Your task to perform on an android device: Clear all items from cart on bestbuy.com. Image 0: 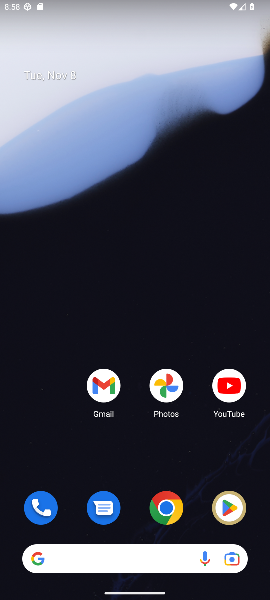
Step 0: click (162, 506)
Your task to perform on an android device: Clear all items from cart on bestbuy.com. Image 1: 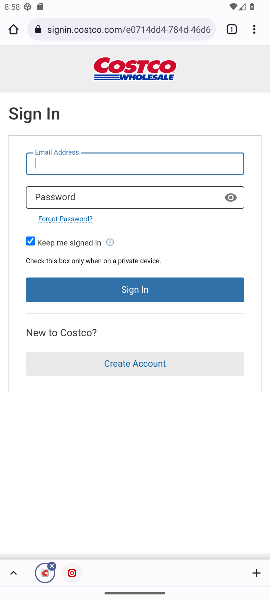
Step 1: click (79, 25)
Your task to perform on an android device: Clear all items from cart on bestbuy.com. Image 2: 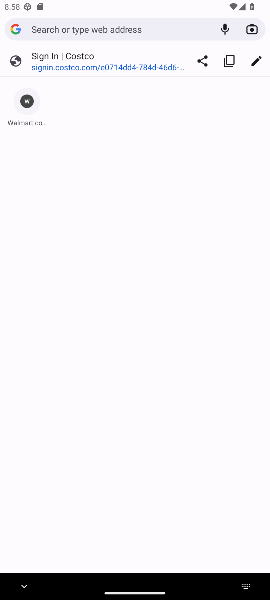
Step 2: type "best buy"
Your task to perform on an android device: Clear all items from cart on bestbuy.com. Image 3: 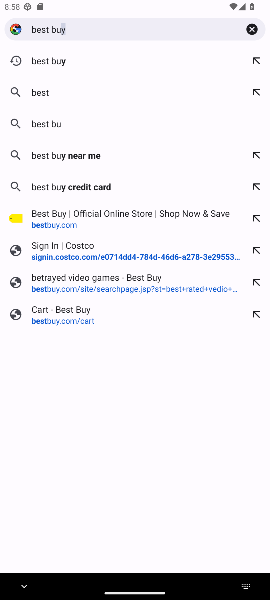
Step 3: type ""
Your task to perform on an android device: Clear all items from cart on bestbuy.com. Image 4: 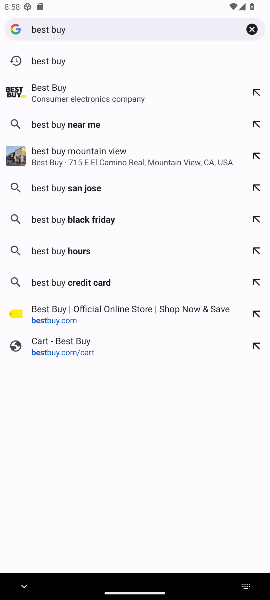
Step 4: click (63, 97)
Your task to perform on an android device: Clear all items from cart on bestbuy.com. Image 5: 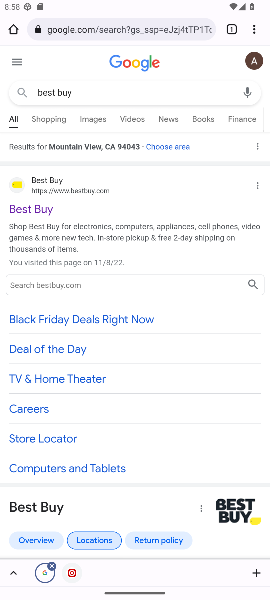
Step 5: click (29, 209)
Your task to perform on an android device: Clear all items from cart on bestbuy.com. Image 6: 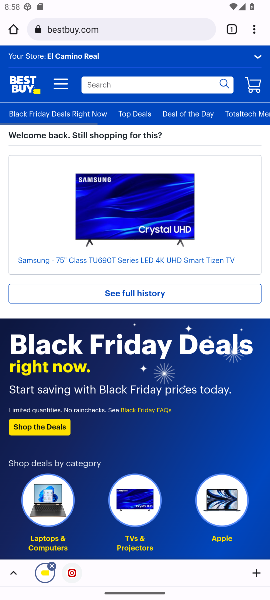
Step 6: click (250, 84)
Your task to perform on an android device: Clear all items from cart on bestbuy.com. Image 7: 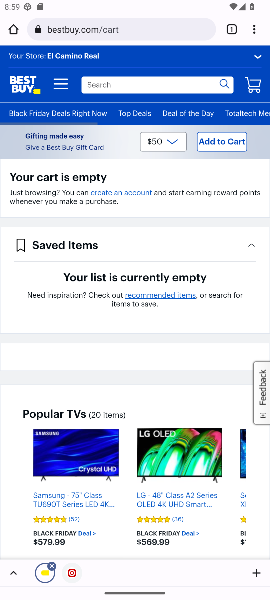
Step 7: task complete